Your task to perform on an android device: allow cookies in the chrome app Image 0: 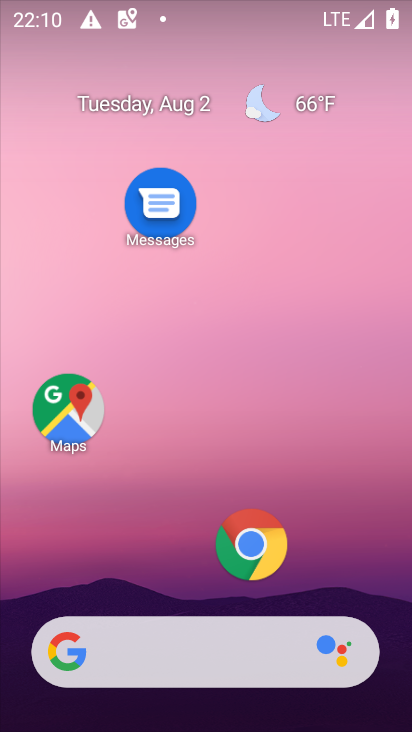
Step 0: click (241, 540)
Your task to perform on an android device: allow cookies in the chrome app Image 1: 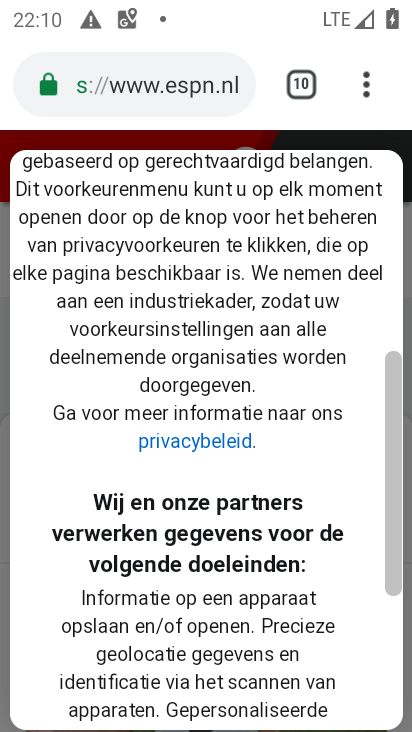
Step 1: click (361, 97)
Your task to perform on an android device: allow cookies in the chrome app Image 2: 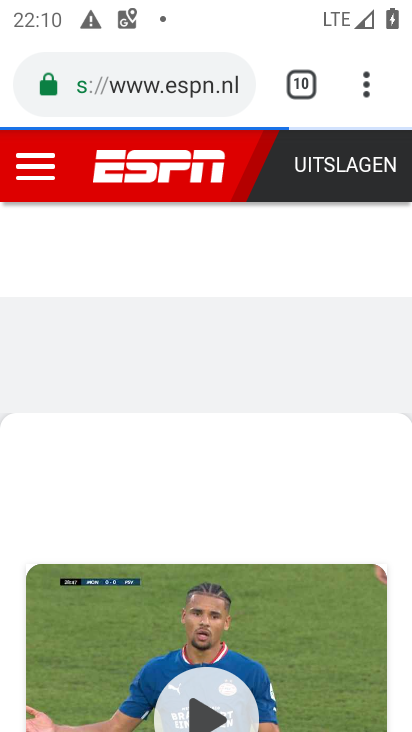
Step 2: click (355, 80)
Your task to perform on an android device: allow cookies in the chrome app Image 3: 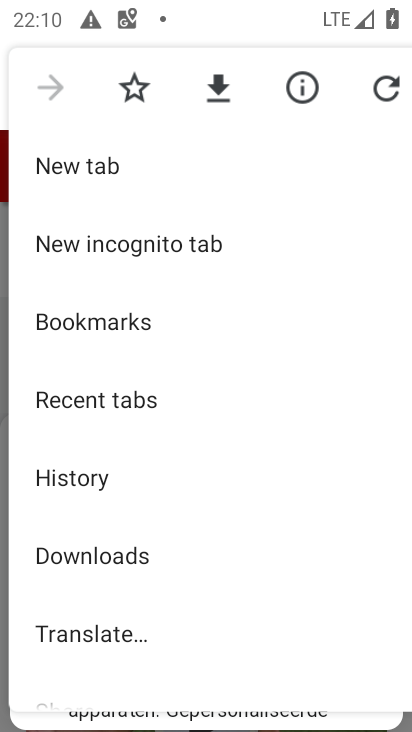
Step 3: drag from (177, 533) to (201, 236)
Your task to perform on an android device: allow cookies in the chrome app Image 4: 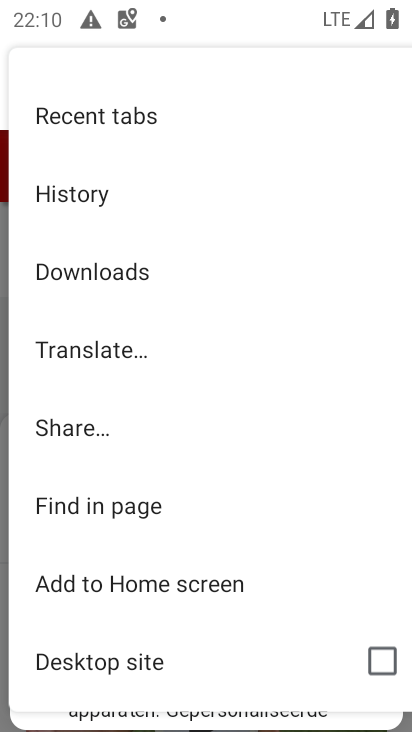
Step 4: drag from (130, 648) to (152, 298)
Your task to perform on an android device: allow cookies in the chrome app Image 5: 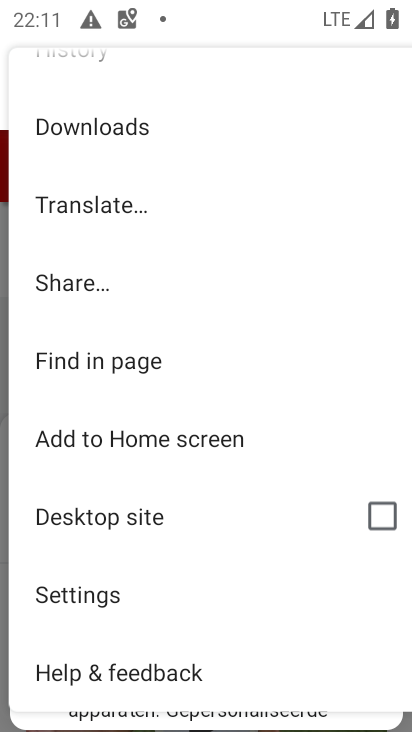
Step 5: click (103, 594)
Your task to perform on an android device: allow cookies in the chrome app Image 6: 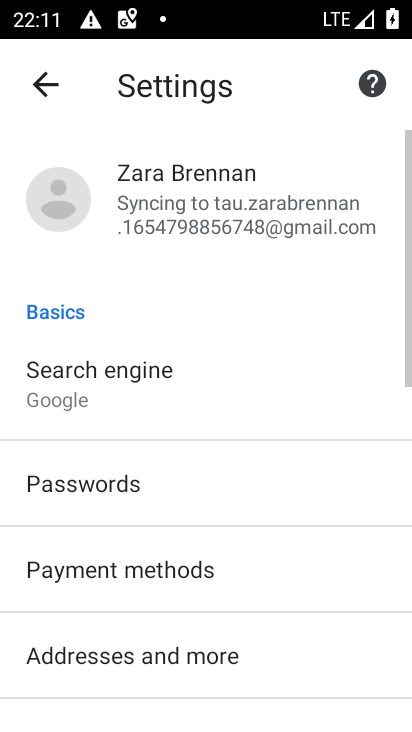
Step 6: drag from (193, 566) to (232, 214)
Your task to perform on an android device: allow cookies in the chrome app Image 7: 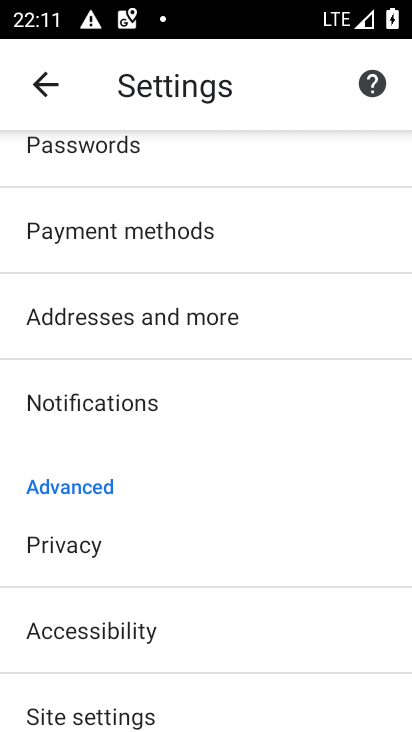
Step 7: drag from (169, 612) to (169, 332)
Your task to perform on an android device: allow cookies in the chrome app Image 8: 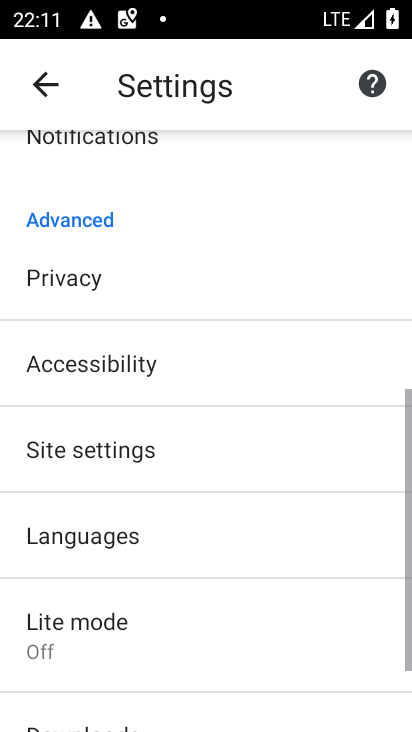
Step 8: click (148, 442)
Your task to perform on an android device: allow cookies in the chrome app Image 9: 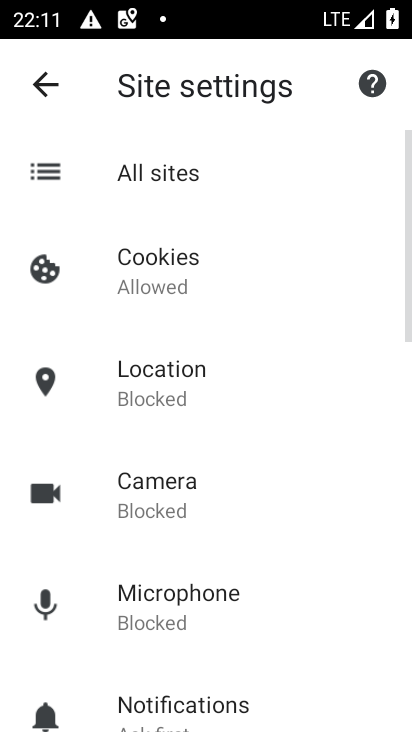
Step 9: click (184, 244)
Your task to perform on an android device: allow cookies in the chrome app Image 10: 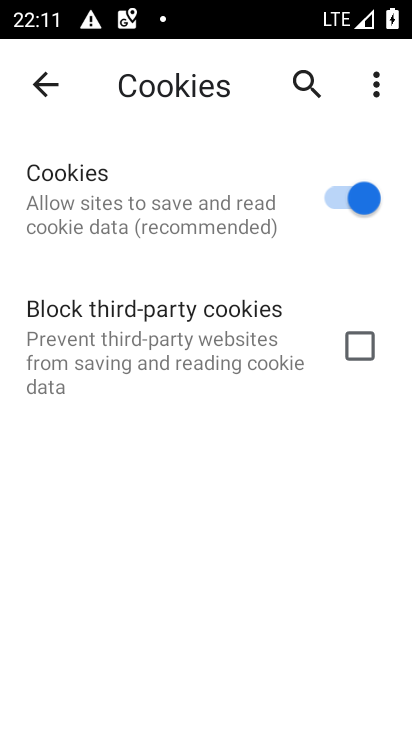
Step 10: task complete